Your task to perform on an android device: see creations saved in the google photos Image 0: 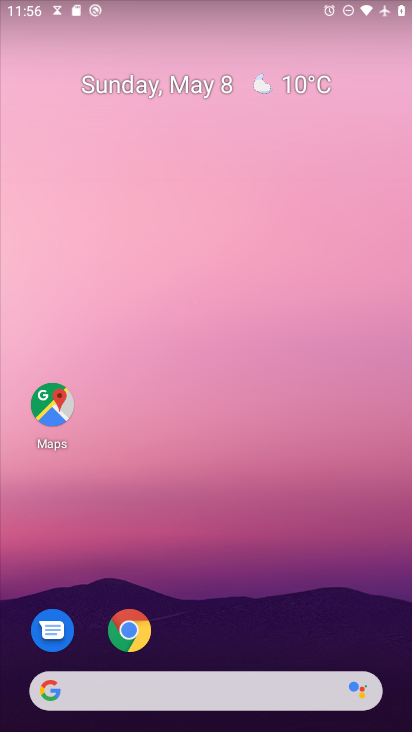
Step 0: drag from (176, 681) to (299, 114)
Your task to perform on an android device: see creations saved in the google photos Image 1: 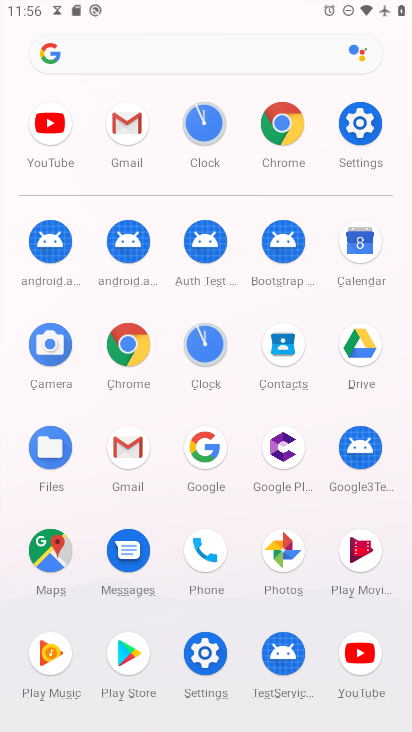
Step 1: click (278, 546)
Your task to perform on an android device: see creations saved in the google photos Image 2: 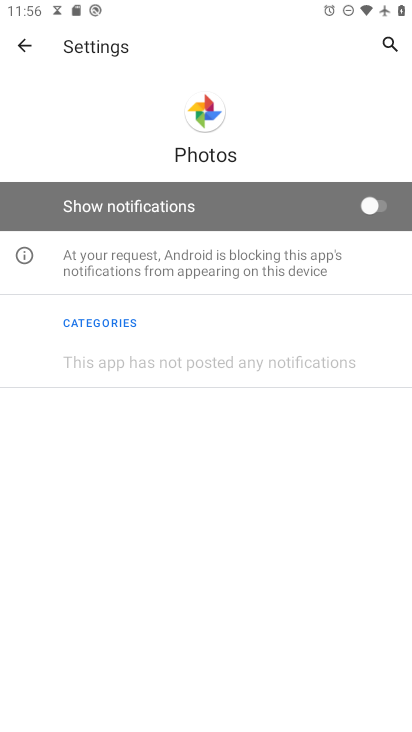
Step 2: click (27, 44)
Your task to perform on an android device: see creations saved in the google photos Image 3: 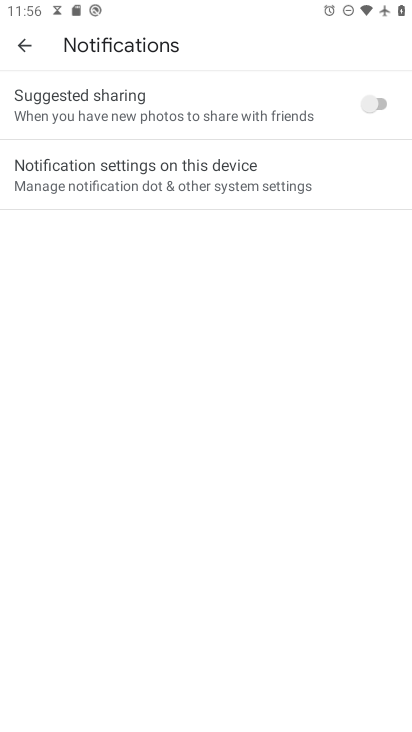
Step 3: click (27, 42)
Your task to perform on an android device: see creations saved in the google photos Image 4: 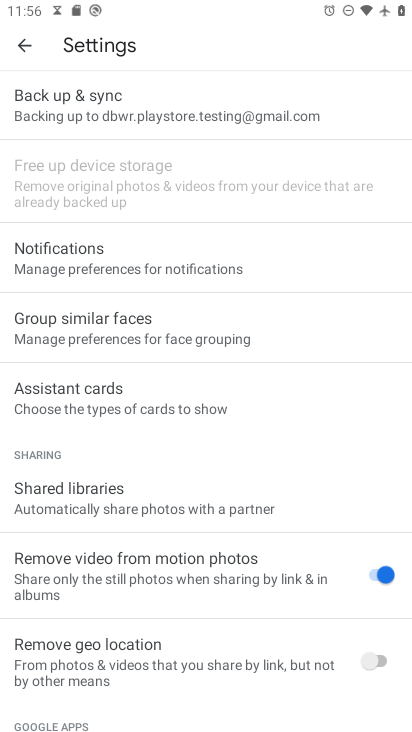
Step 4: click (29, 47)
Your task to perform on an android device: see creations saved in the google photos Image 5: 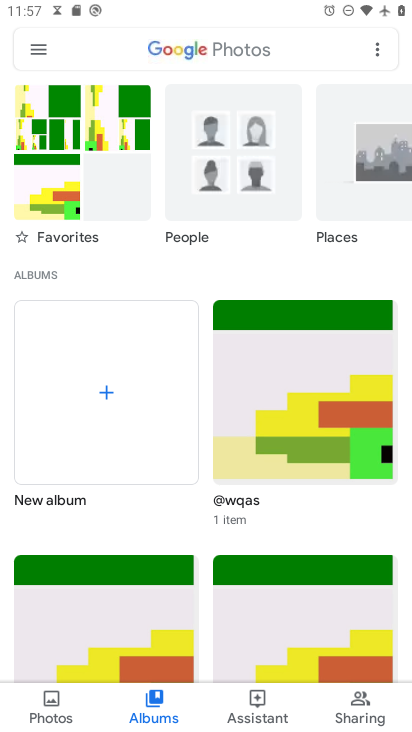
Step 5: click (159, 49)
Your task to perform on an android device: see creations saved in the google photos Image 6: 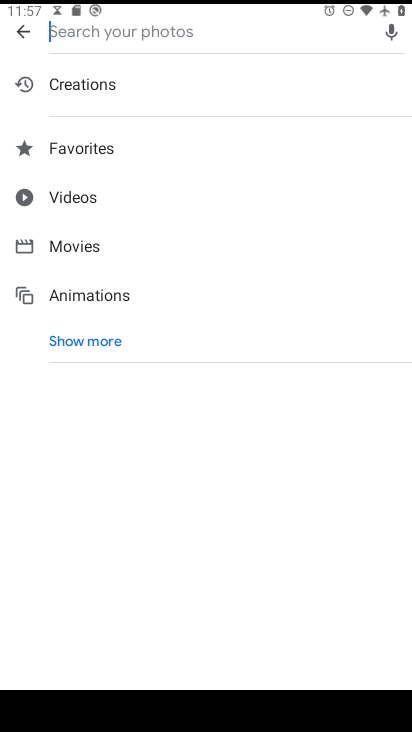
Step 6: click (105, 346)
Your task to perform on an android device: see creations saved in the google photos Image 7: 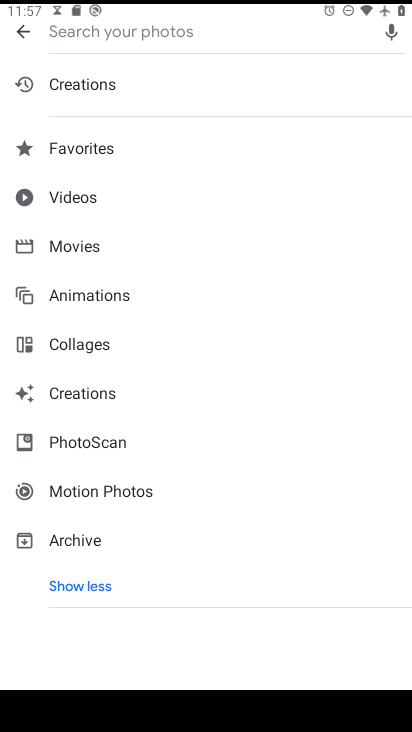
Step 7: click (91, 384)
Your task to perform on an android device: see creations saved in the google photos Image 8: 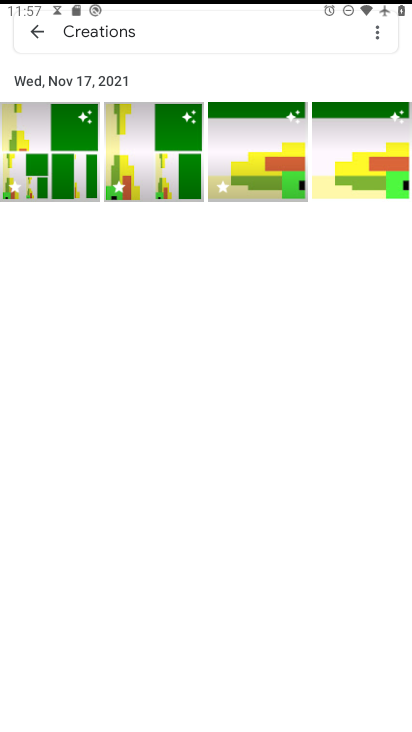
Step 8: task complete